Your task to perform on an android device: turn on notifications settings in the gmail app Image 0: 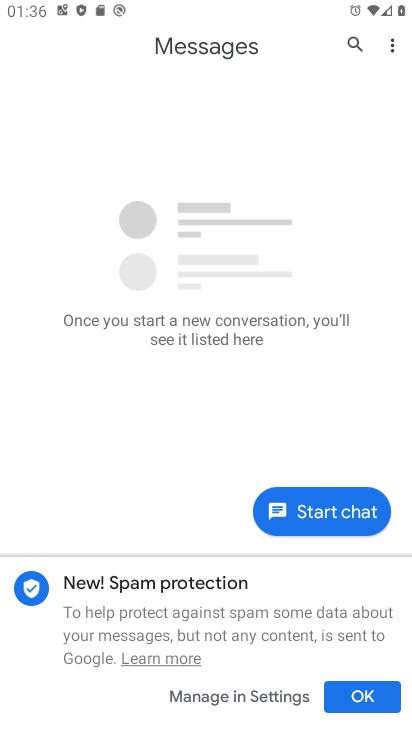
Step 0: press home button
Your task to perform on an android device: turn on notifications settings in the gmail app Image 1: 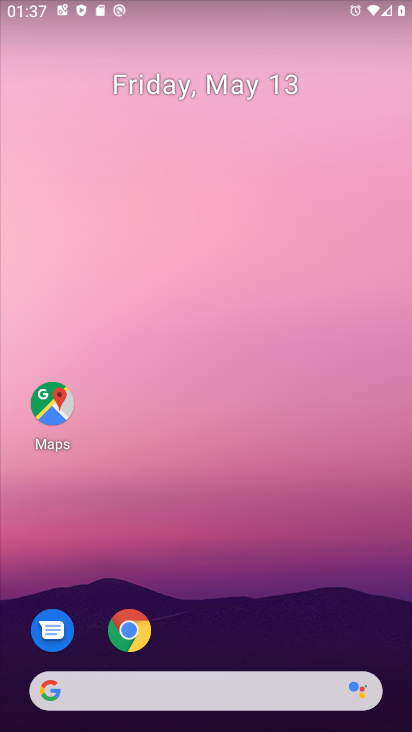
Step 1: drag from (230, 717) to (210, 304)
Your task to perform on an android device: turn on notifications settings in the gmail app Image 2: 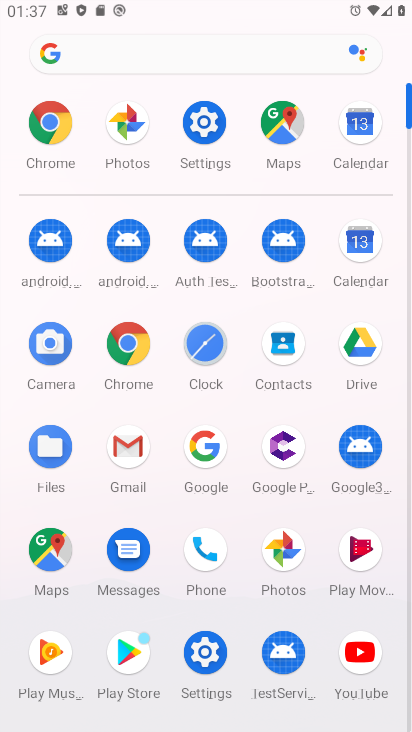
Step 2: click (141, 440)
Your task to perform on an android device: turn on notifications settings in the gmail app Image 3: 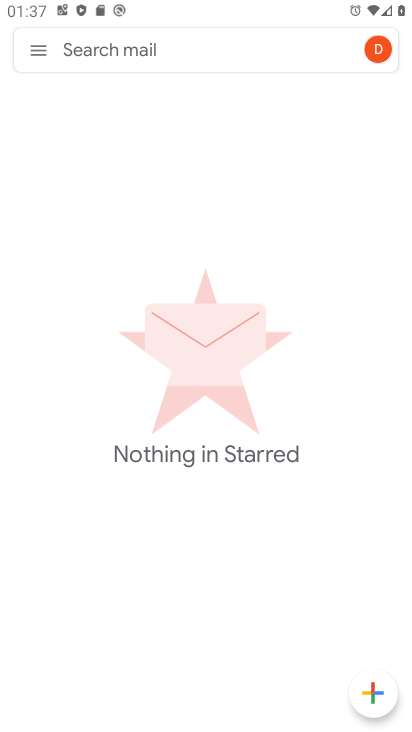
Step 3: click (35, 61)
Your task to perform on an android device: turn on notifications settings in the gmail app Image 4: 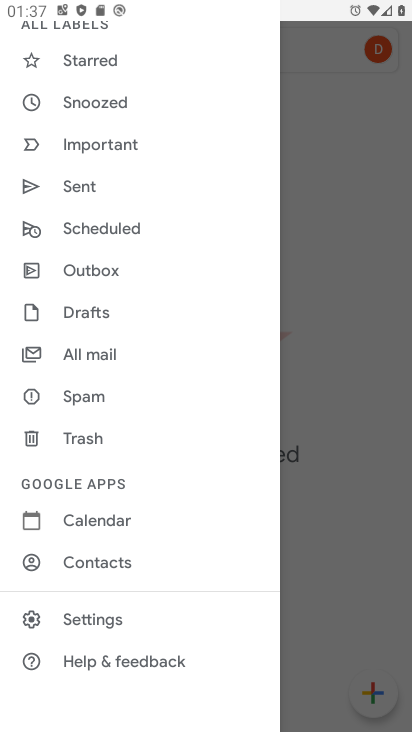
Step 4: click (69, 614)
Your task to perform on an android device: turn on notifications settings in the gmail app Image 5: 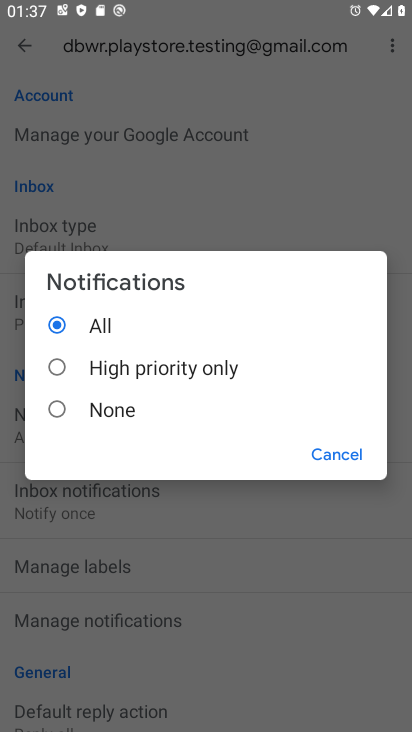
Step 5: task complete